Your task to perform on an android device: see tabs open on other devices in the chrome app Image 0: 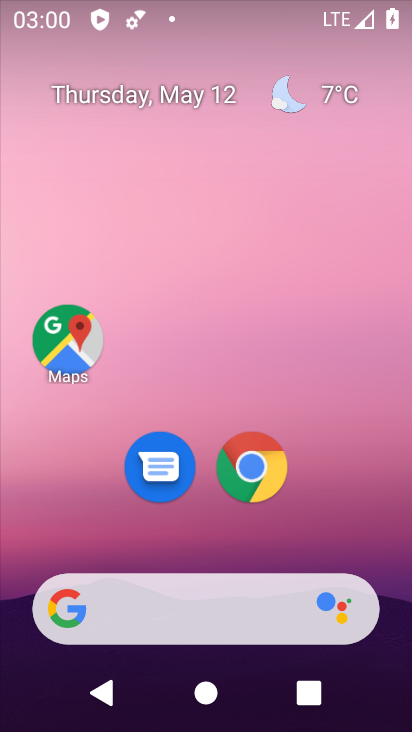
Step 0: click (259, 456)
Your task to perform on an android device: see tabs open on other devices in the chrome app Image 1: 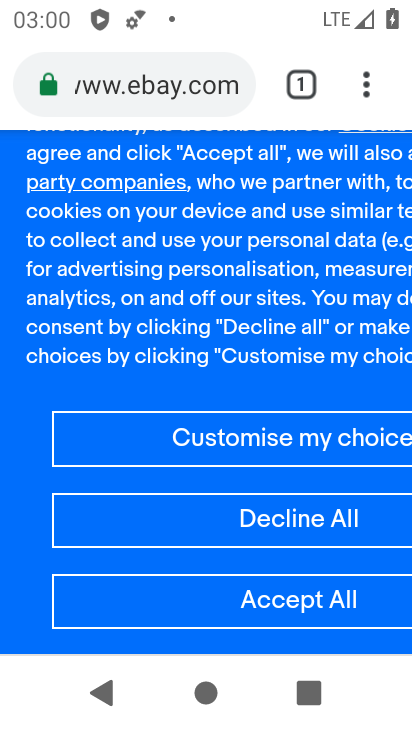
Step 1: click (365, 91)
Your task to perform on an android device: see tabs open on other devices in the chrome app Image 2: 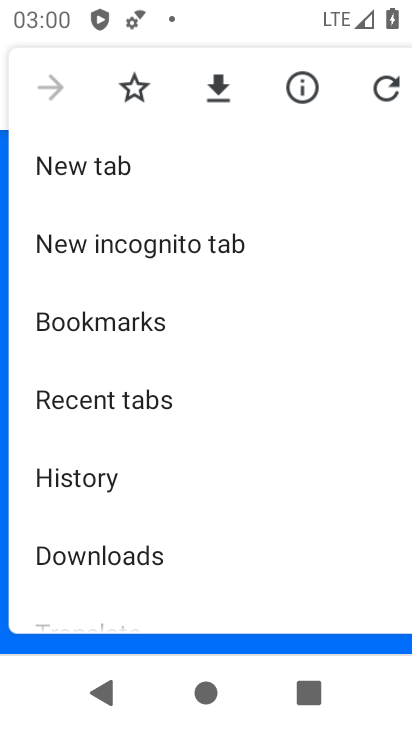
Step 2: click (104, 385)
Your task to perform on an android device: see tabs open on other devices in the chrome app Image 3: 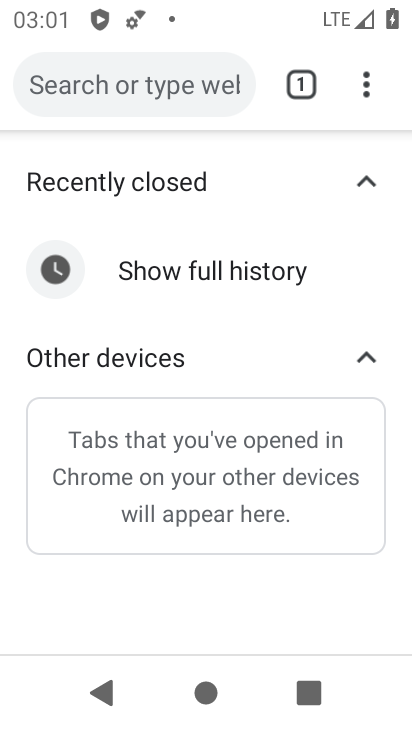
Step 3: task complete